Your task to perform on an android device: What's the weather today? Image 0: 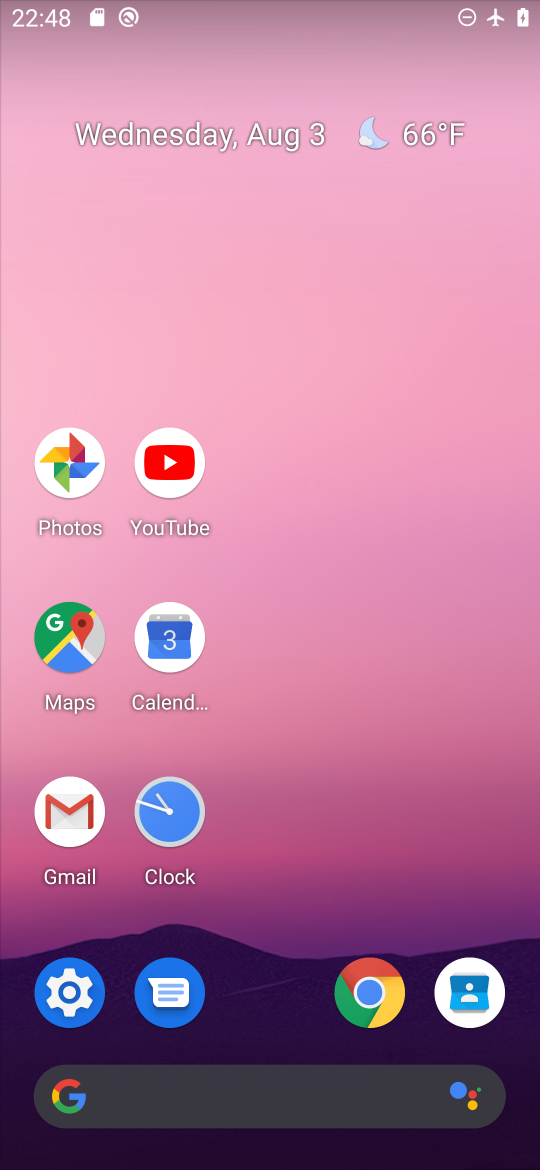
Step 0: click (196, 1105)
Your task to perform on an android device: What's the weather today? Image 1: 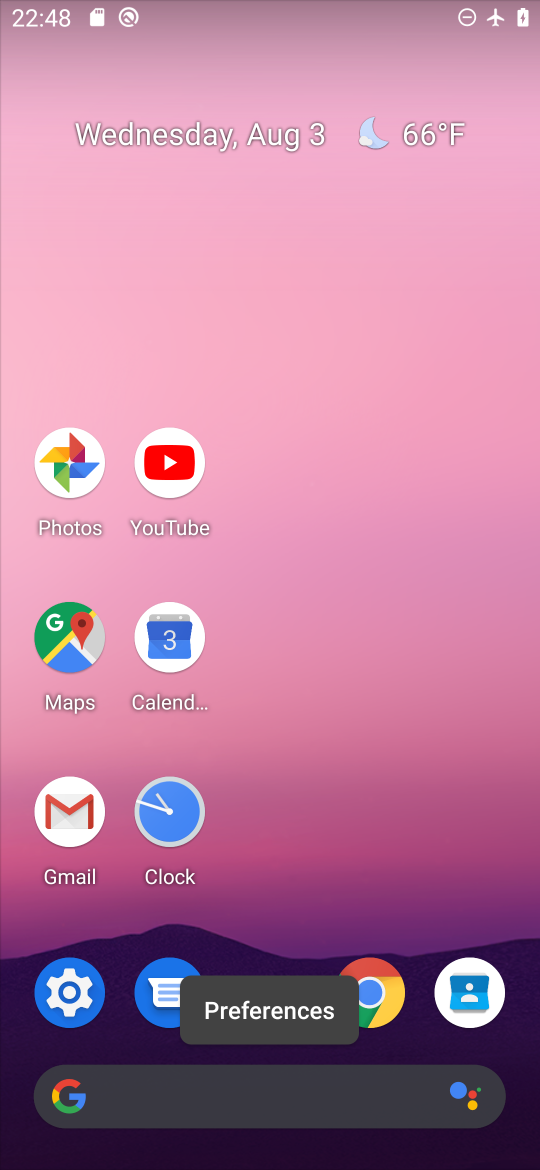
Step 1: click (222, 1115)
Your task to perform on an android device: What's the weather today? Image 2: 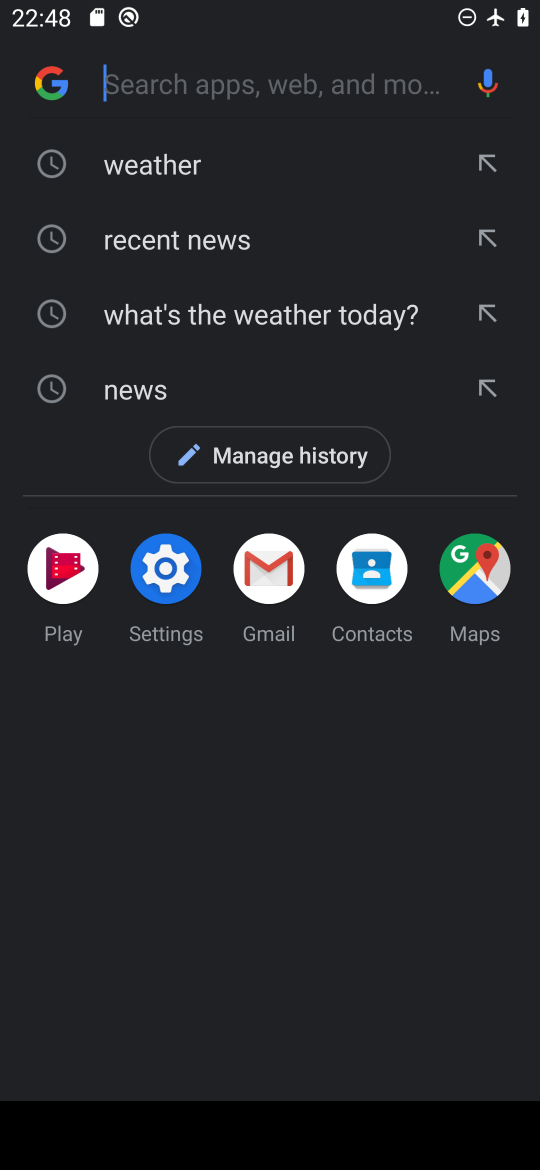
Step 2: click (140, 165)
Your task to perform on an android device: What's the weather today? Image 3: 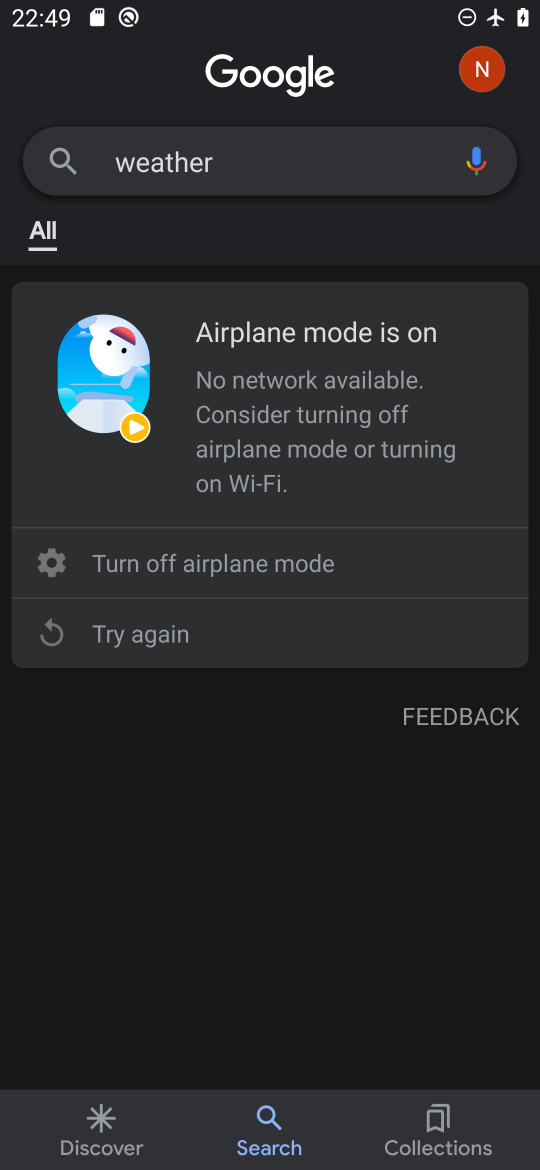
Step 3: click (191, 781)
Your task to perform on an android device: What's the weather today? Image 4: 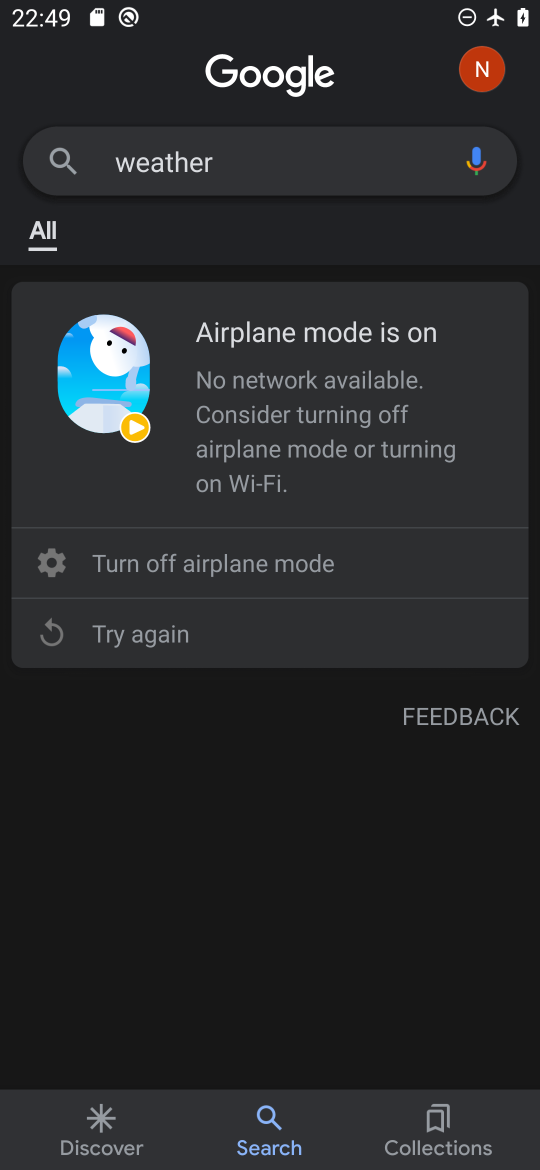
Step 4: click (274, 156)
Your task to perform on an android device: What's the weather today? Image 5: 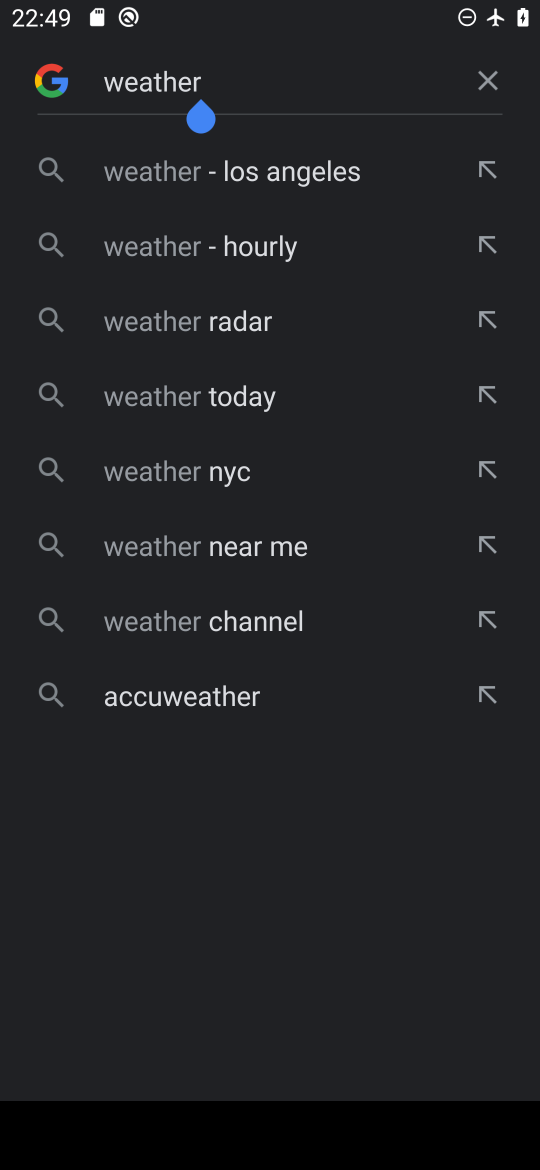
Step 5: click (497, 76)
Your task to perform on an android device: What's the weather today? Image 6: 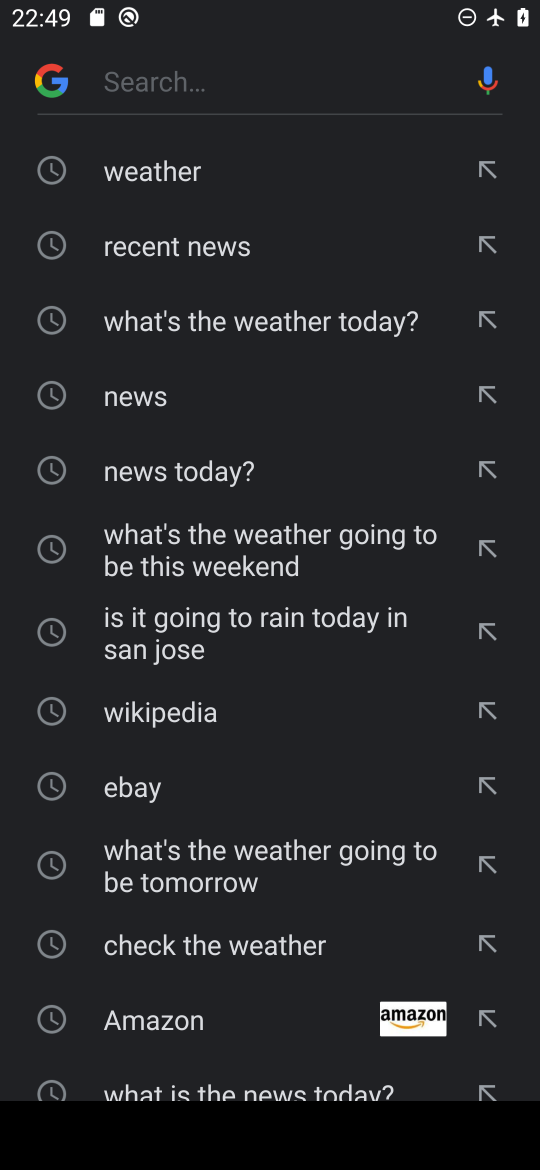
Step 6: task complete